Your task to perform on an android device: turn on javascript in the chrome app Image 0: 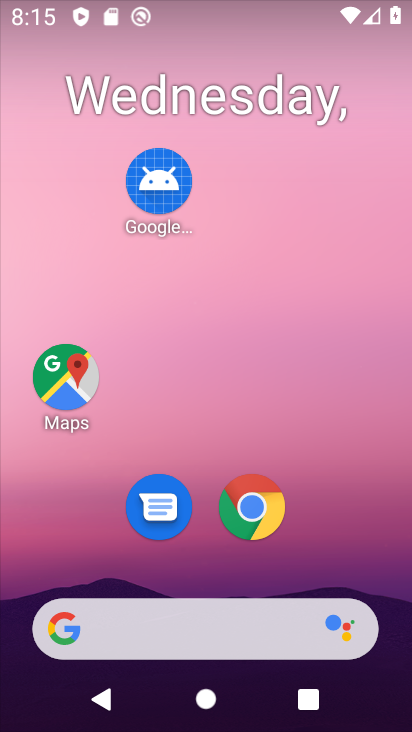
Step 0: click (255, 512)
Your task to perform on an android device: turn on javascript in the chrome app Image 1: 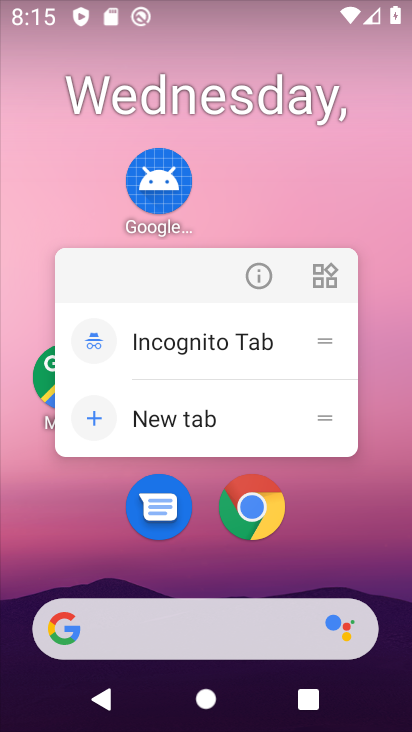
Step 1: click (261, 534)
Your task to perform on an android device: turn on javascript in the chrome app Image 2: 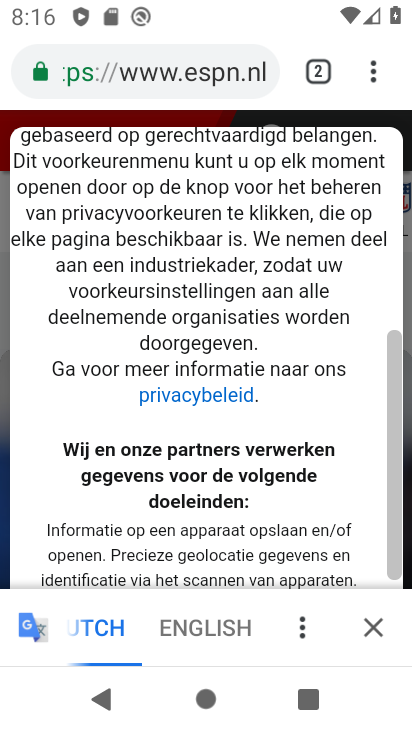
Step 2: click (372, 67)
Your task to perform on an android device: turn on javascript in the chrome app Image 3: 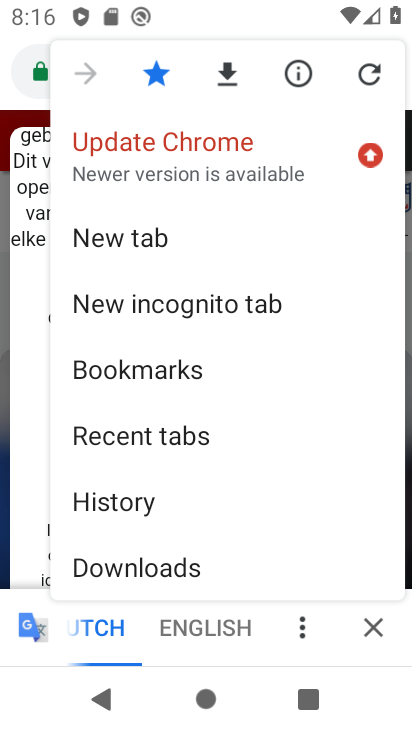
Step 3: drag from (241, 544) to (209, 21)
Your task to perform on an android device: turn on javascript in the chrome app Image 4: 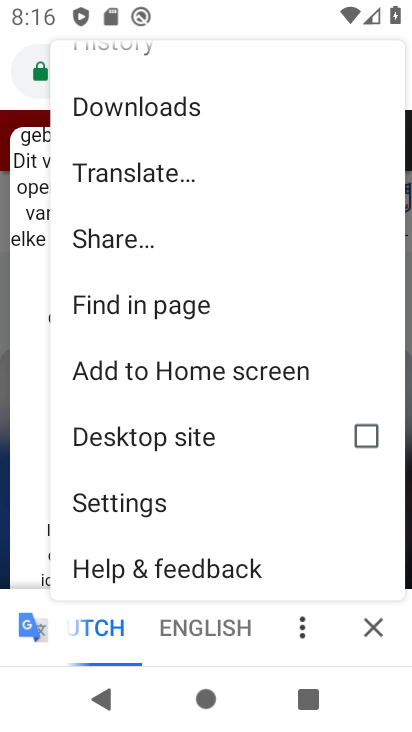
Step 4: click (171, 493)
Your task to perform on an android device: turn on javascript in the chrome app Image 5: 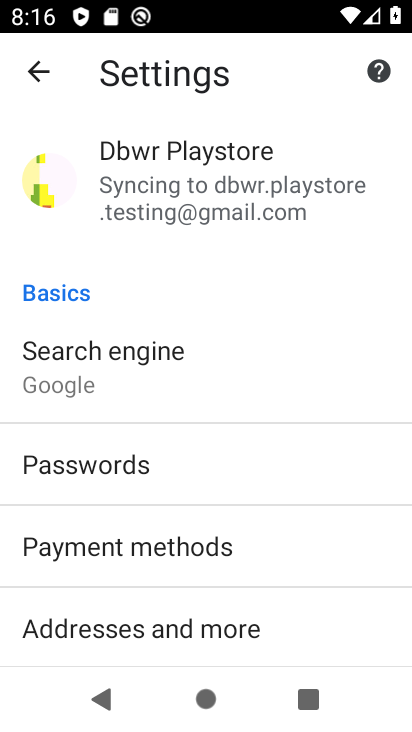
Step 5: drag from (171, 493) to (176, 129)
Your task to perform on an android device: turn on javascript in the chrome app Image 6: 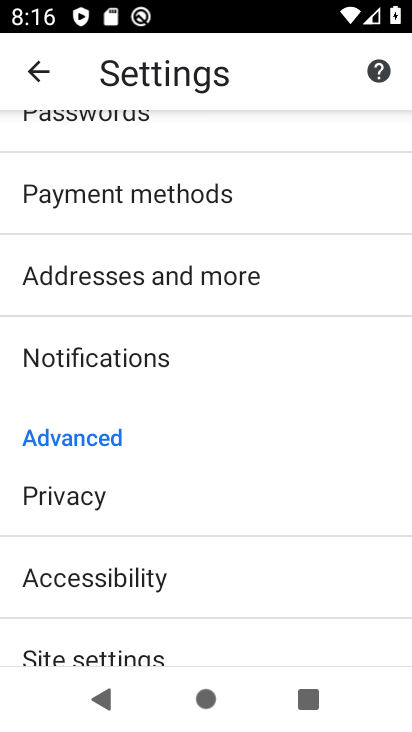
Step 6: click (44, 489)
Your task to perform on an android device: turn on javascript in the chrome app Image 7: 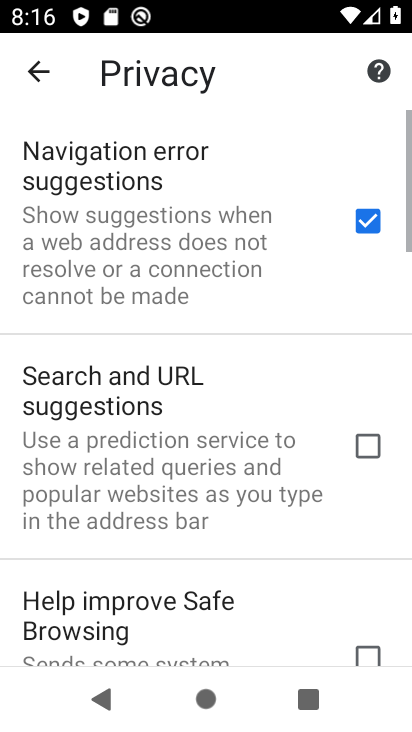
Step 7: click (32, 55)
Your task to perform on an android device: turn on javascript in the chrome app Image 8: 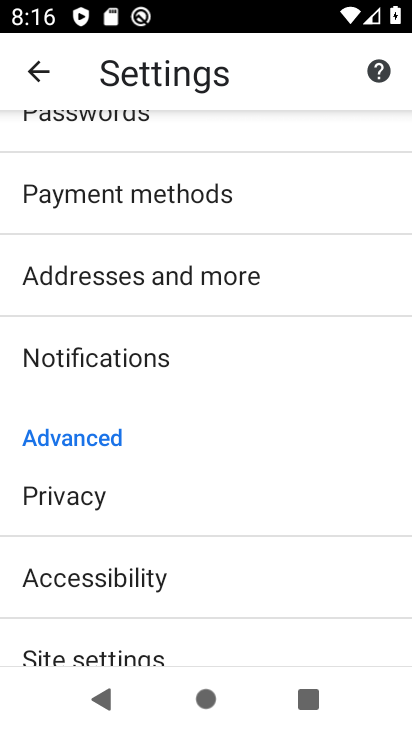
Step 8: drag from (153, 525) to (135, 45)
Your task to perform on an android device: turn on javascript in the chrome app Image 9: 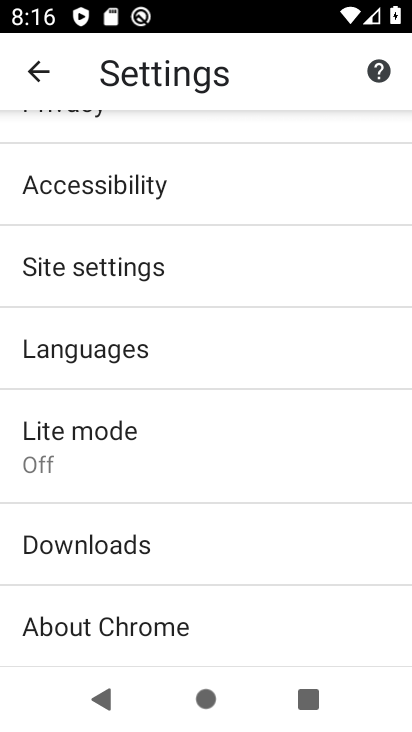
Step 9: click (108, 272)
Your task to perform on an android device: turn on javascript in the chrome app Image 10: 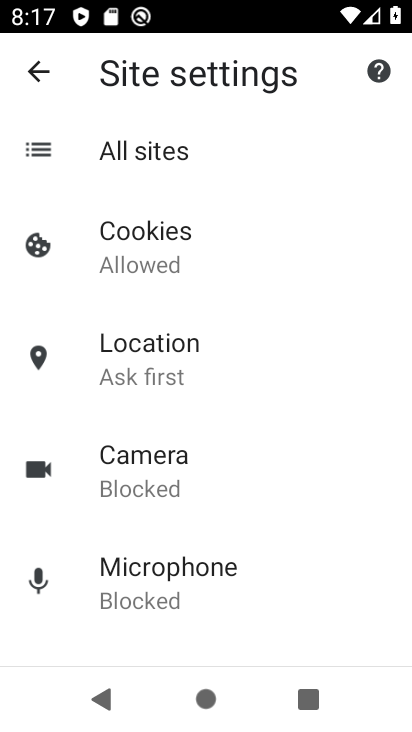
Step 10: drag from (174, 557) to (132, 92)
Your task to perform on an android device: turn on javascript in the chrome app Image 11: 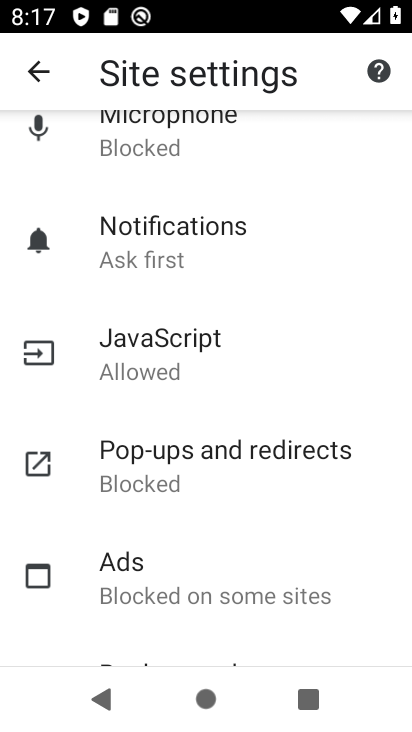
Step 11: click (143, 362)
Your task to perform on an android device: turn on javascript in the chrome app Image 12: 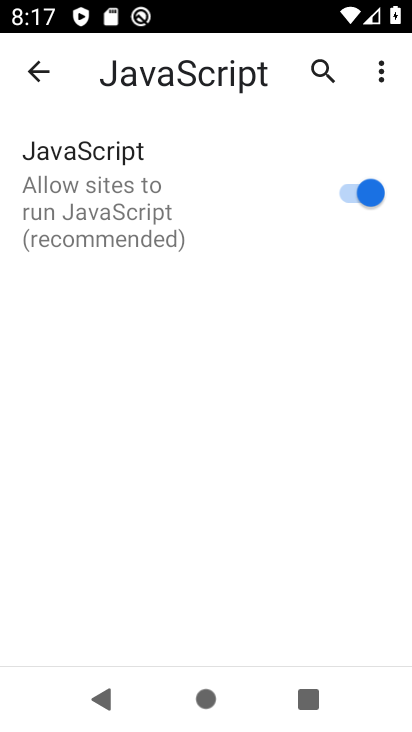
Step 12: task complete